Your task to perform on an android device: Search for "razer deathadder" on ebay, select the first entry, and add it to the cart. Image 0: 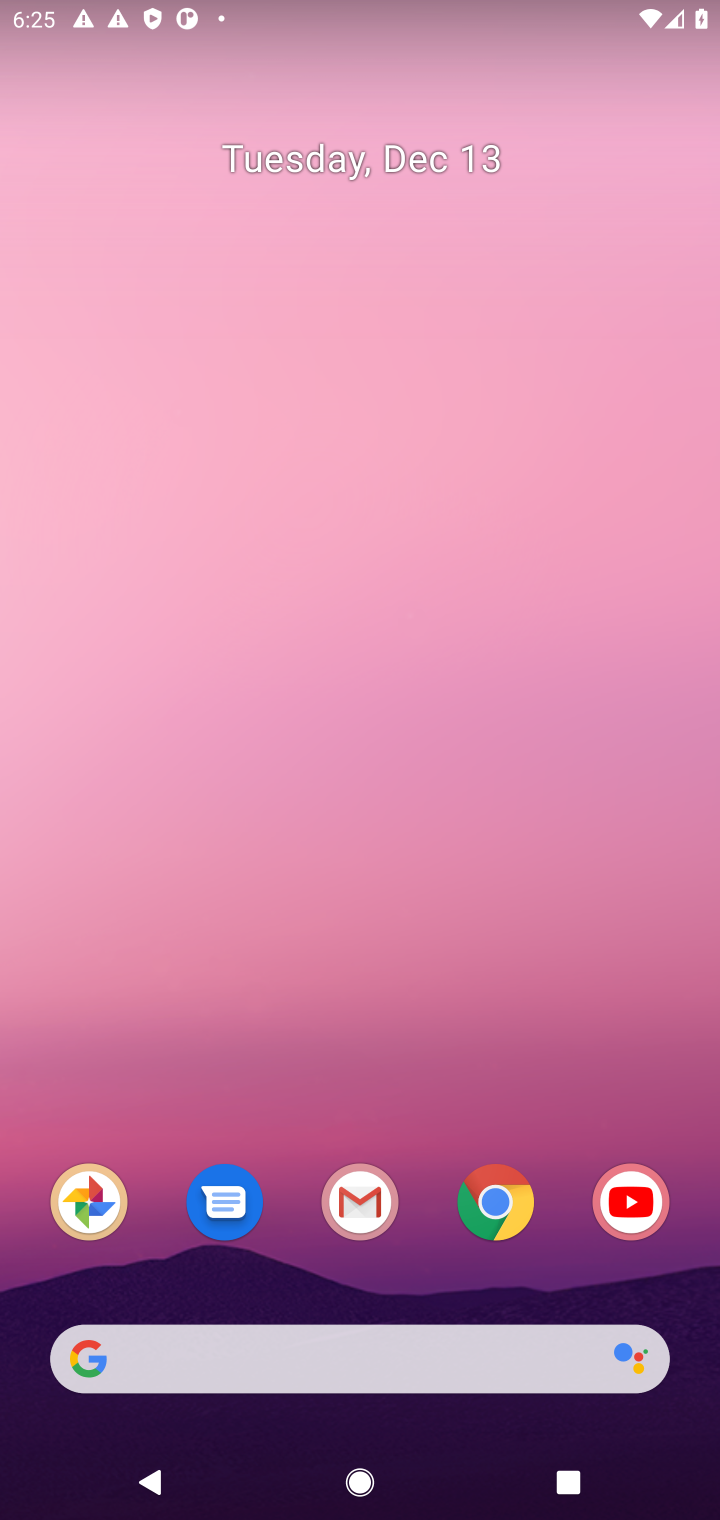
Step 0: click (493, 1222)
Your task to perform on an android device: Search for "razer deathadder" on ebay, select the first entry, and add it to the cart. Image 1: 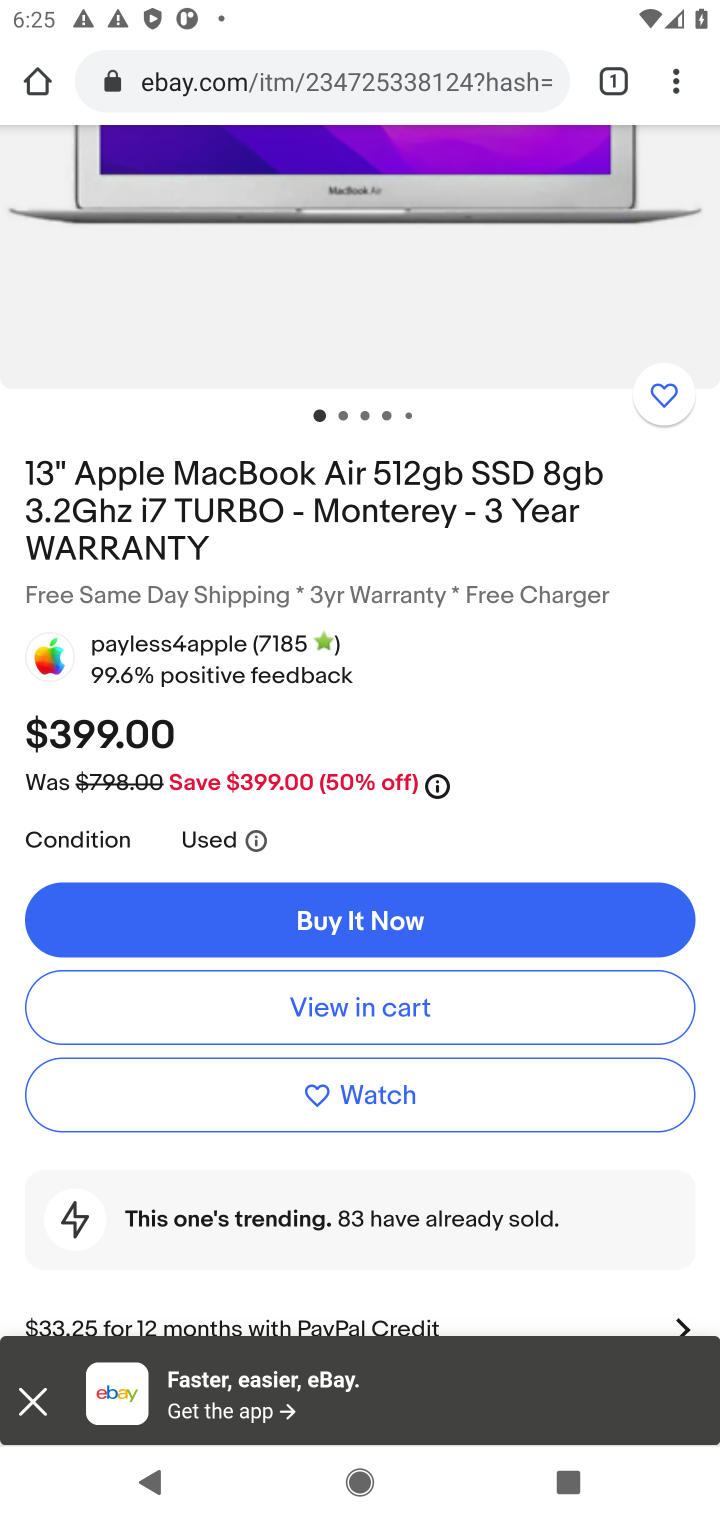
Step 1: drag from (428, 489) to (432, 1196)
Your task to perform on an android device: Search for "razer deathadder" on ebay, select the first entry, and add it to the cart. Image 2: 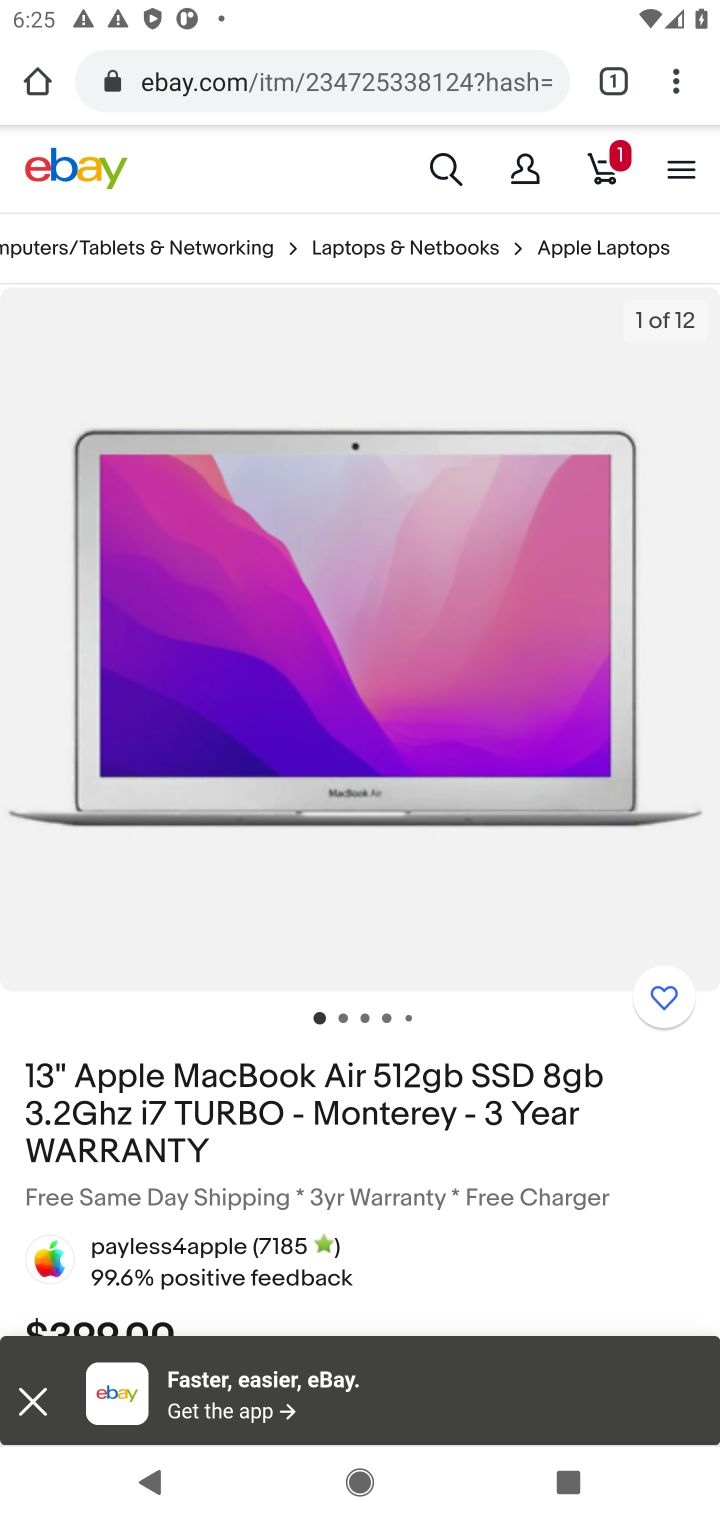
Step 2: click (438, 171)
Your task to perform on an android device: Search for "razer deathadder" on ebay, select the first entry, and add it to the cart. Image 3: 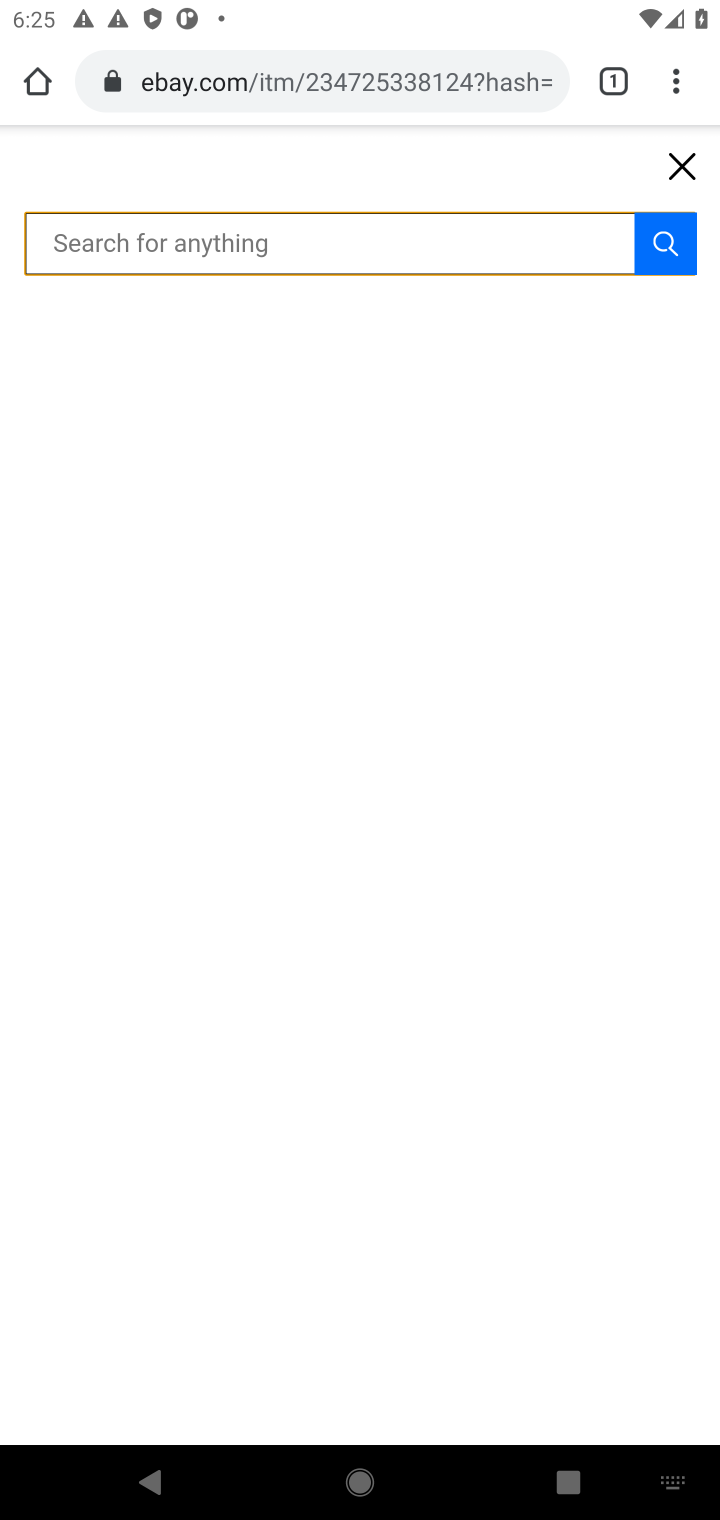
Step 3: type "razer deathadder"
Your task to perform on an android device: Search for "razer deathadder" on ebay, select the first entry, and add it to the cart. Image 4: 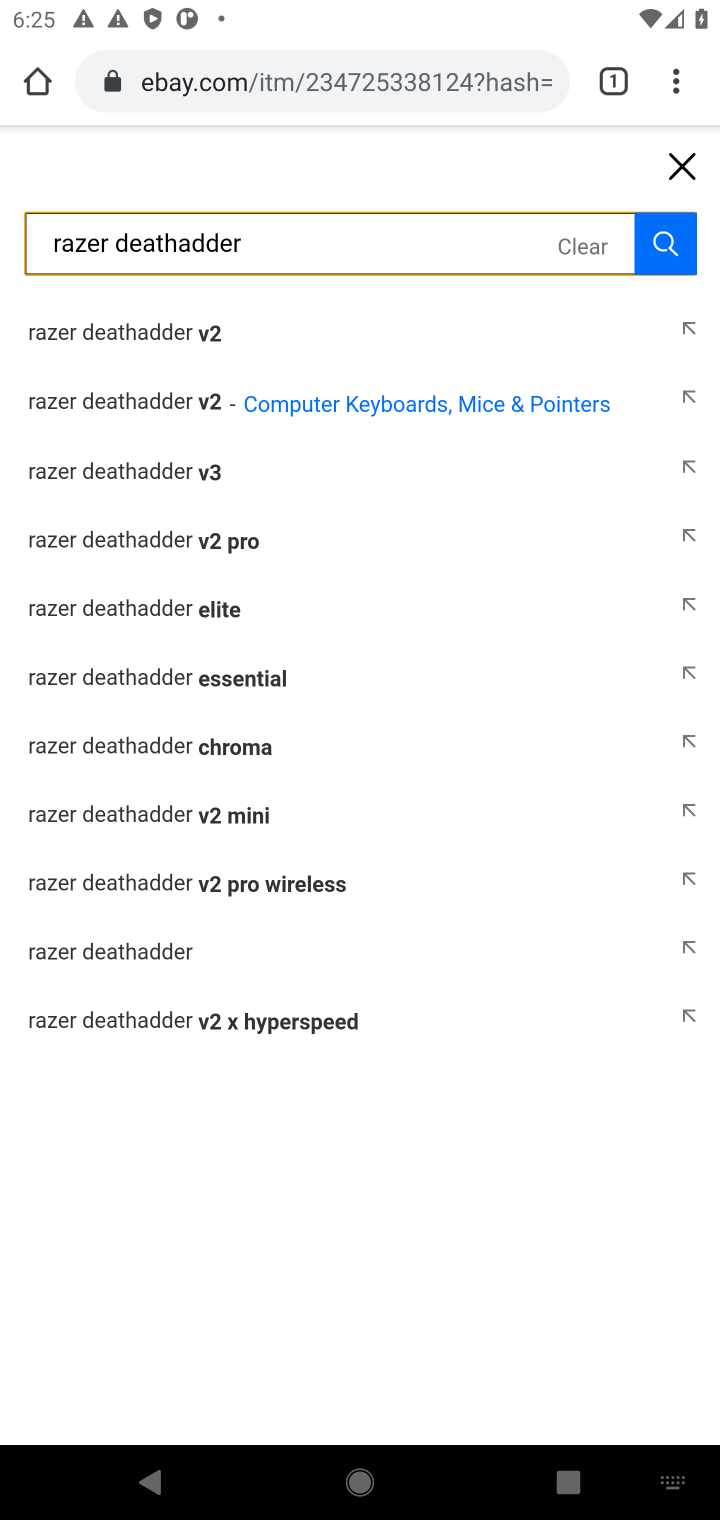
Step 4: click (95, 950)
Your task to perform on an android device: Search for "razer deathadder" on ebay, select the first entry, and add it to the cart. Image 5: 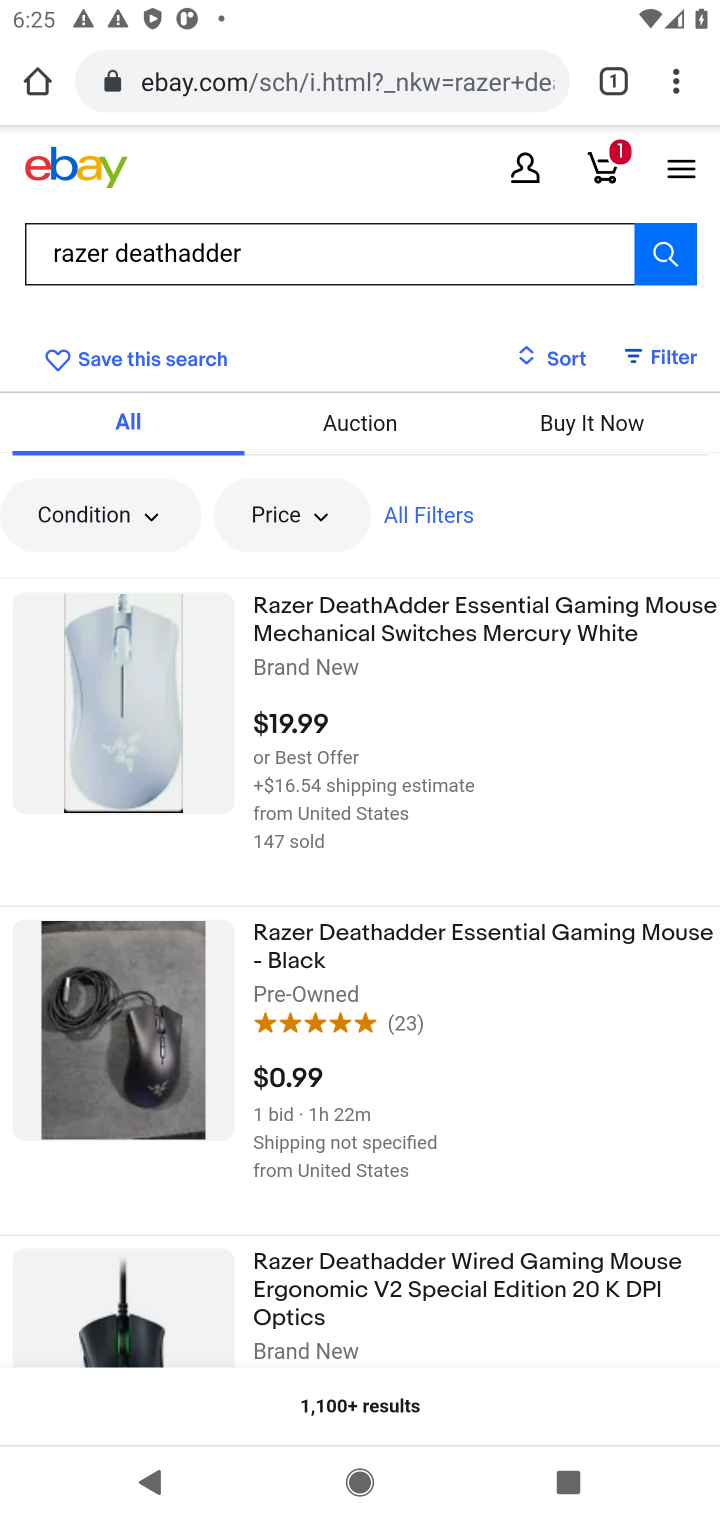
Step 5: click (316, 640)
Your task to perform on an android device: Search for "razer deathadder" on ebay, select the first entry, and add it to the cart. Image 6: 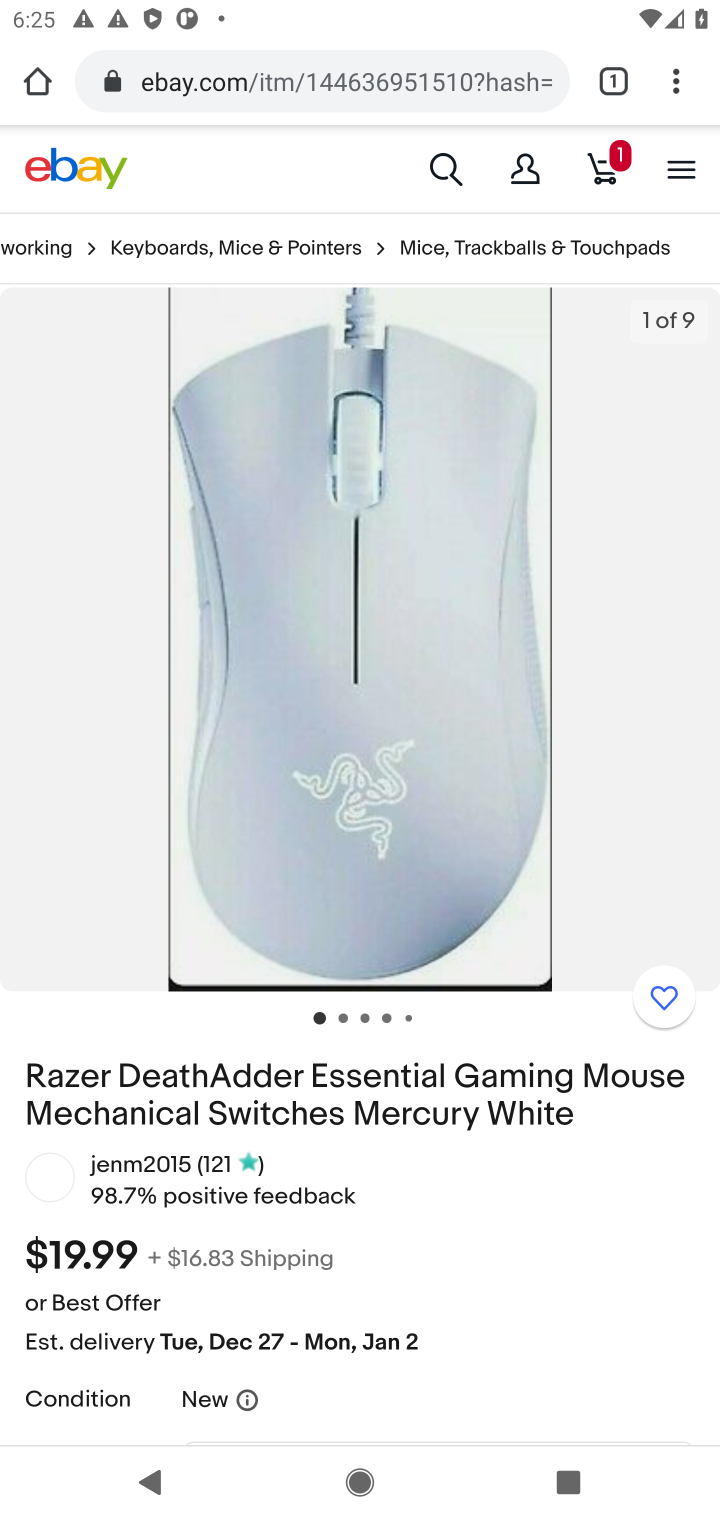
Step 6: drag from (313, 1145) to (331, 581)
Your task to perform on an android device: Search for "razer deathadder" on ebay, select the first entry, and add it to the cart. Image 7: 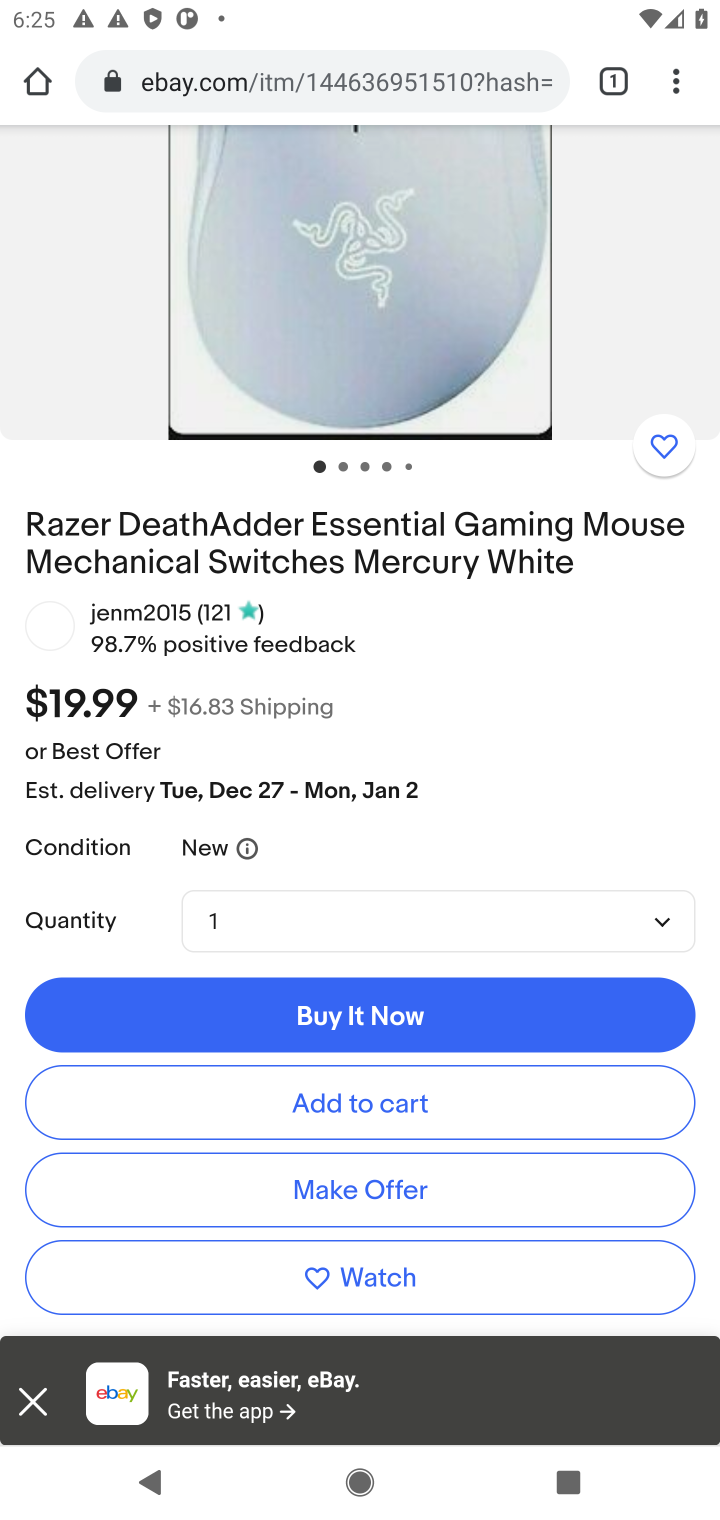
Step 7: click (332, 1110)
Your task to perform on an android device: Search for "razer deathadder" on ebay, select the first entry, and add it to the cart. Image 8: 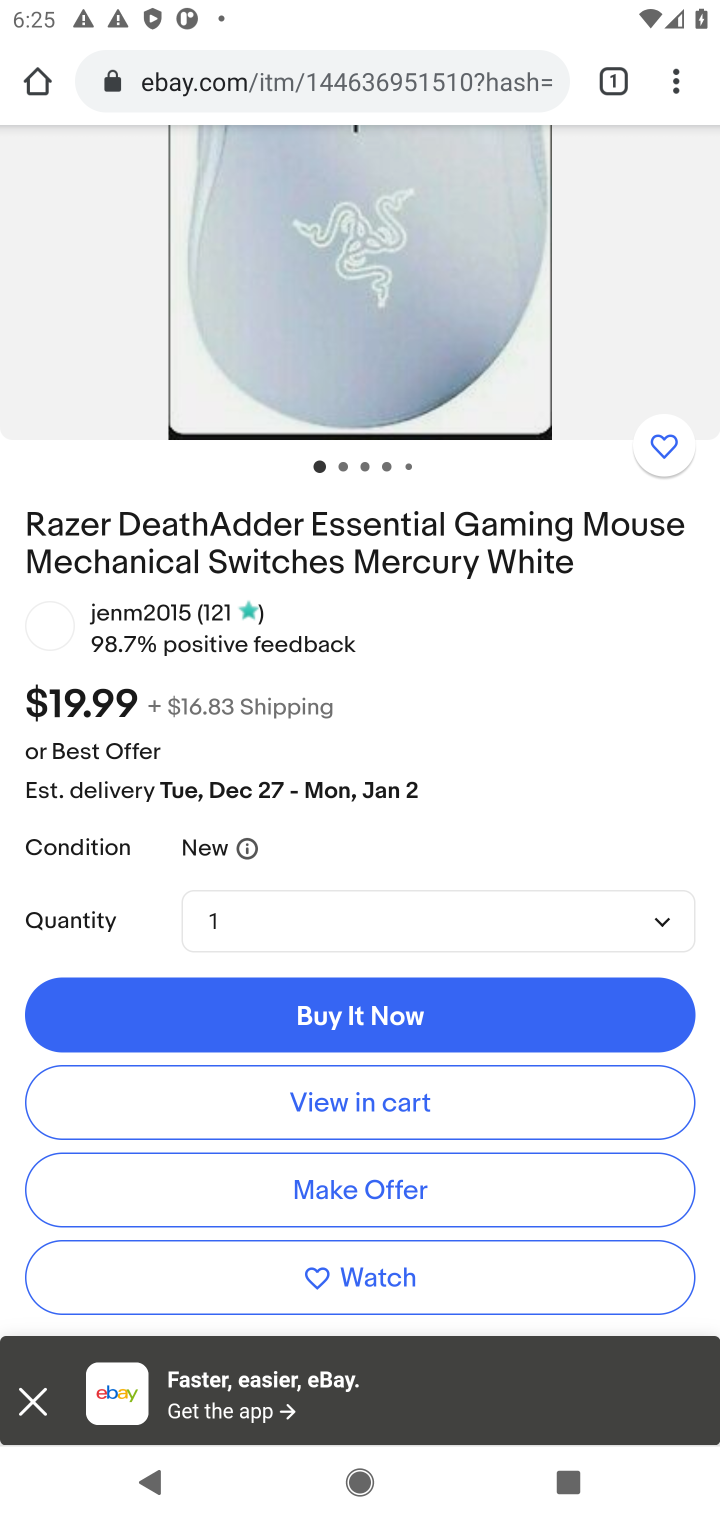
Step 8: task complete